Your task to perform on an android device: Play the last video I watched on Youtube Image 0: 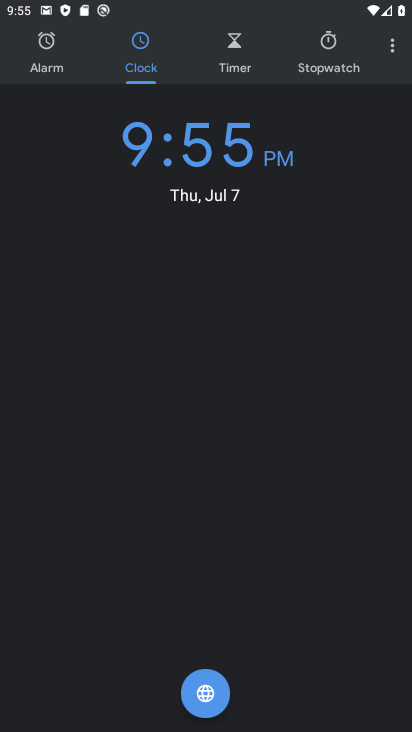
Step 0: press home button
Your task to perform on an android device: Play the last video I watched on Youtube Image 1: 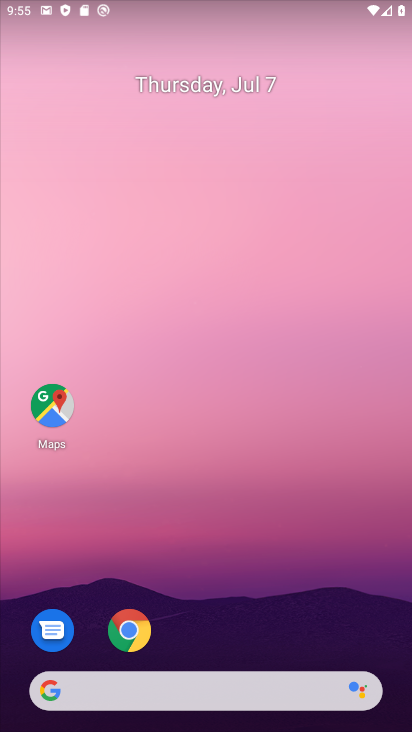
Step 1: drag from (27, 708) to (190, 185)
Your task to perform on an android device: Play the last video I watched on Youtube Image 2: 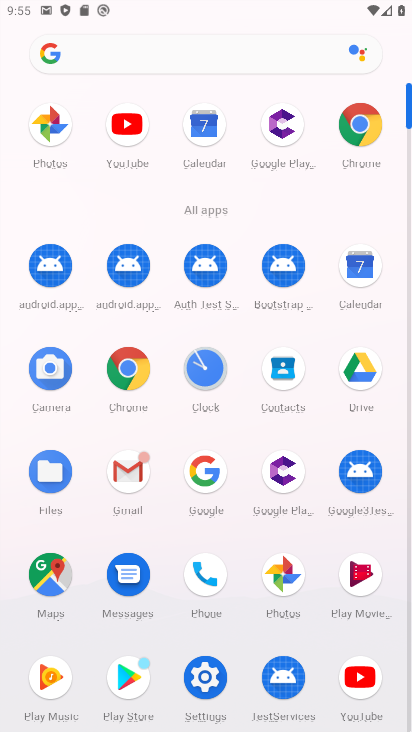
Step 2: click (134, 121)
Your task to perform on an android device: Play the last video I watched on Youtube Image 3: 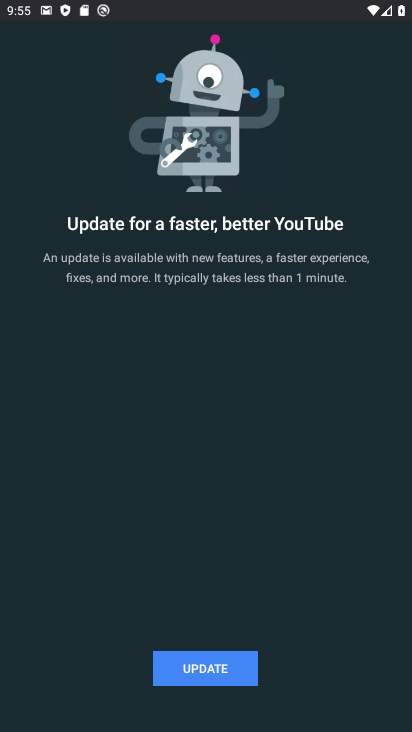
Step 3: click (206, 679)
Your task to perform on an android device: Play the last video I watched on Youtube Image 4: 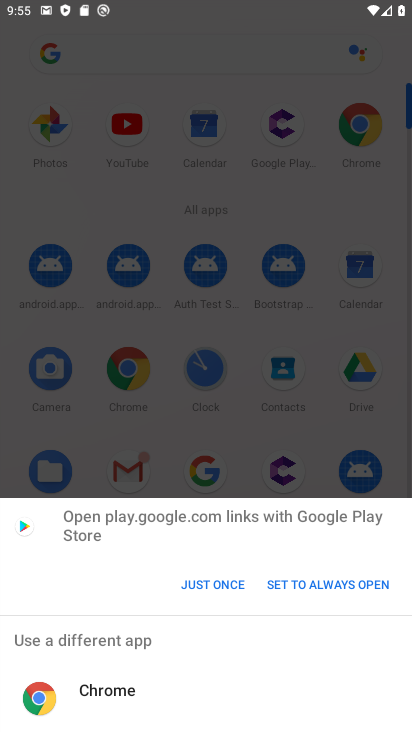
Step 4: click (210, 580)
Your task to perform on an android device: Play the last video I watched on Youtube Image 5: 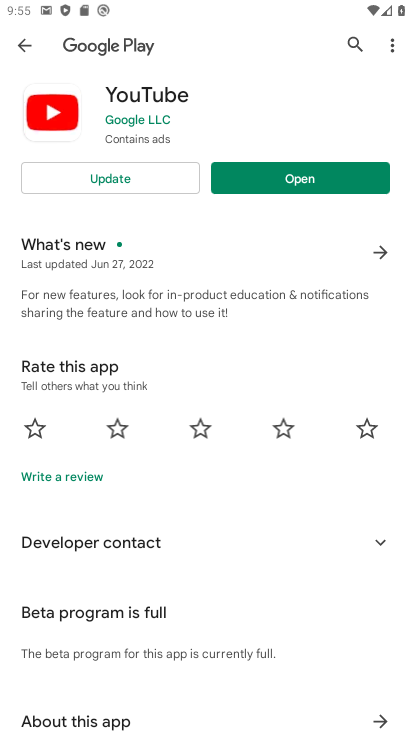
Step 5: click (286, 182)
Your task to perform on an android device: Play the last video I watched on Youtube Image 6: 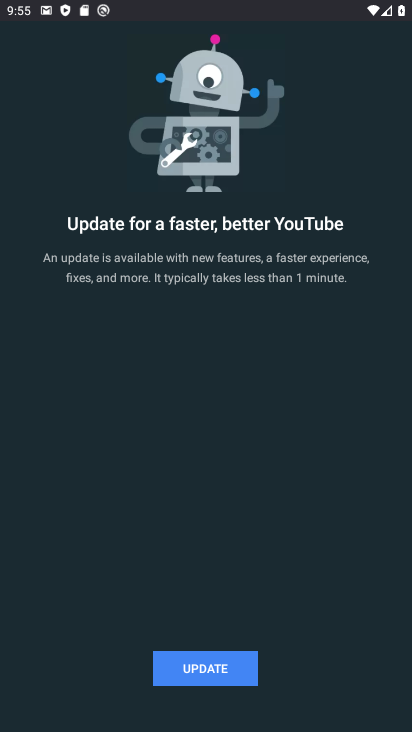
Step 6: click (229, 659)
Your task to perform on an android device: Play the last video I watched on Youtube Image 7: 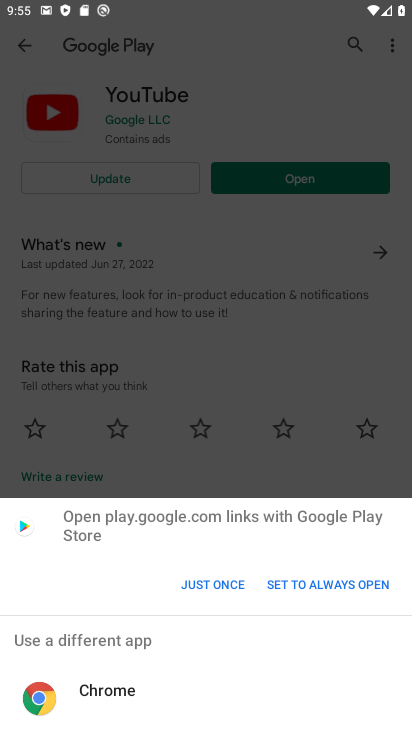
Step 7: click (207, 591)
Your task to perform on an android device: Play the last video I watched on Youtube Image 8: 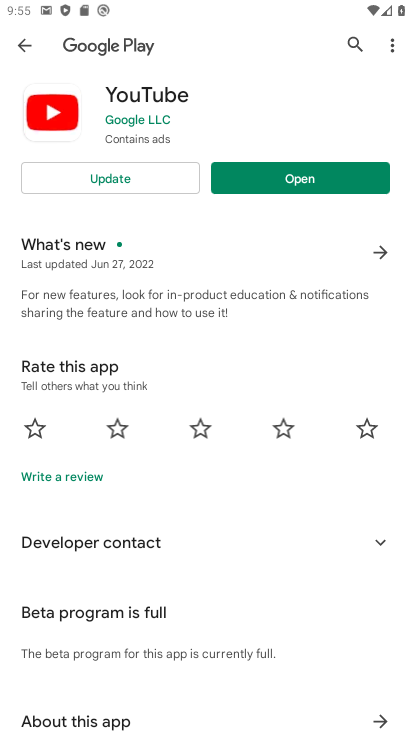
Step 8: click (254, 182)
Your task to perform on an android device: Play the last video I watched on Youtube Image 9: 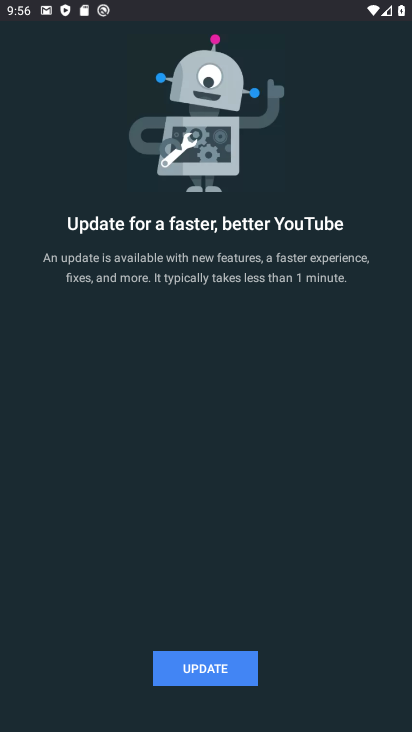
Step 9: task complete